Your task to perform on an android device: stop showing notifications on the lock screen Image 0: 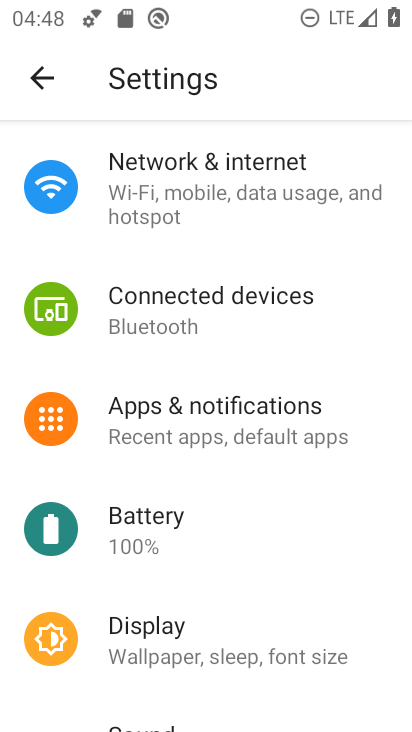
Step 0: press home button
Your task to perform on an android device: stop showing notifications on the lock screen Image 1: 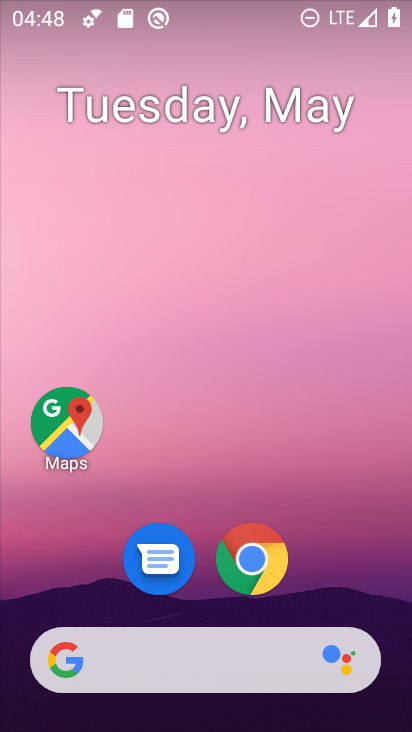
Step 1: drag from (230, 722) to (215, 197)
Your task to perform on an android device: stop showing notifications on the lock screen Image 2: 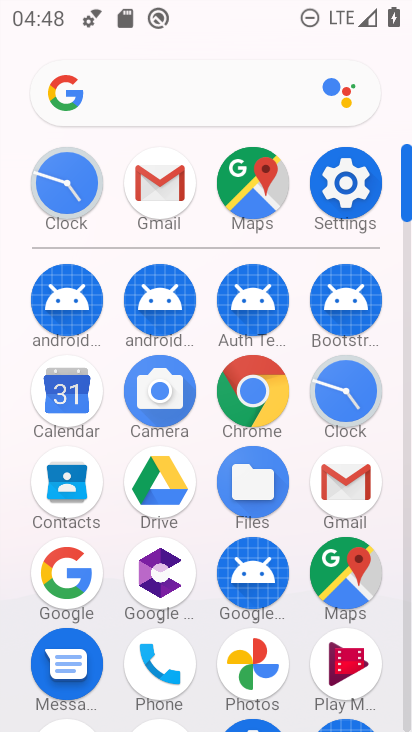
Step 2: click (348, 188)
Your task to perform on an android device: stop showing notifications on the lock screen Image 3: 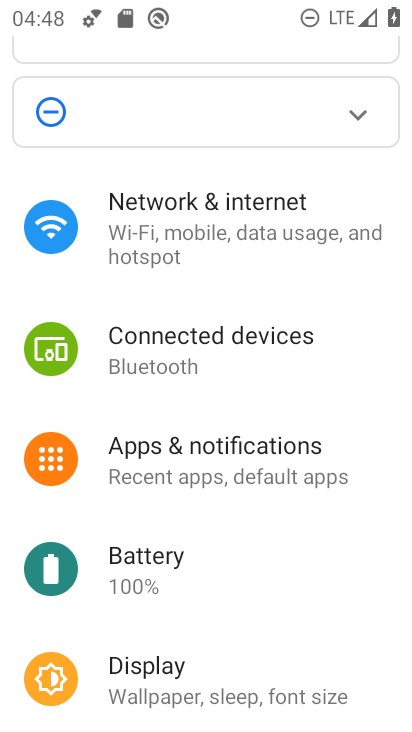
Step 3: click (213, 442)
Your task to perform on an android device: stop showing notifications on the lock screen Image 4: 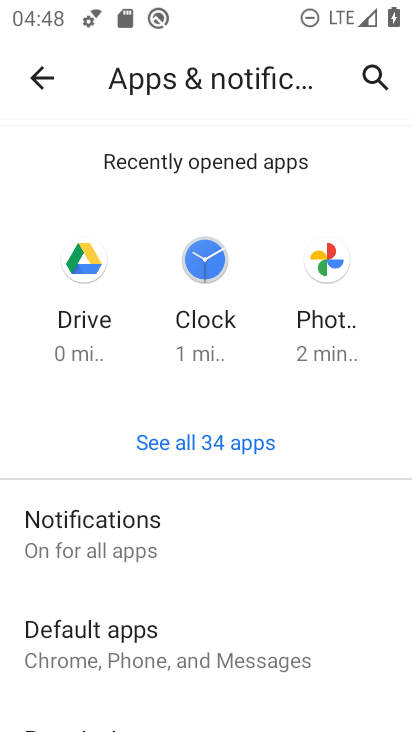
Step 4: click (83, 534)
Your task to perform on an android device: stop showing notifications on the lock screen Image 5: 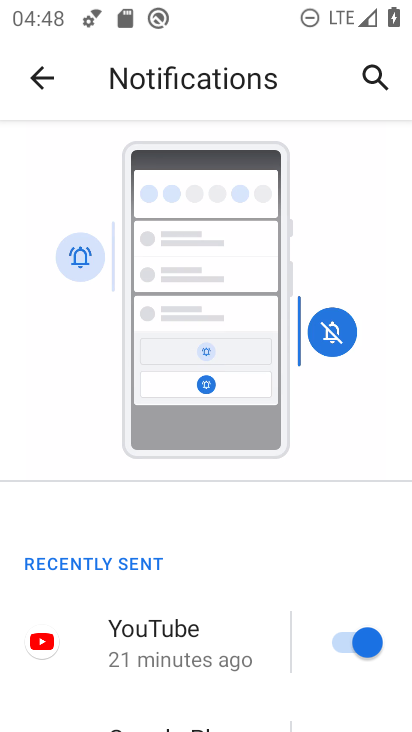
Step 5: drag from (211, 690) to (213, 256)
Your task to perform on an android device: stop showing notifications on the lock screen Image 6: 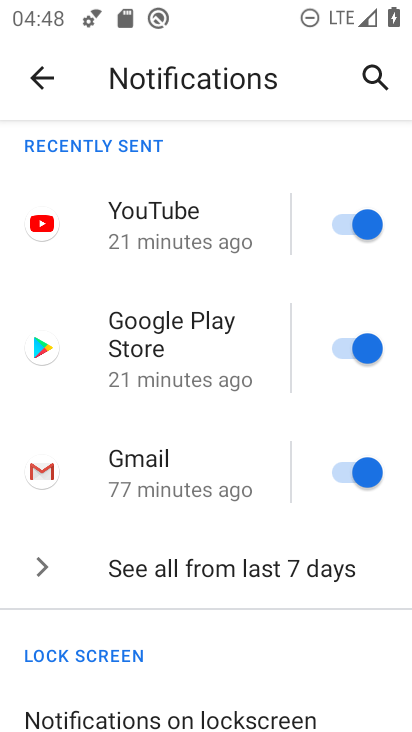
Step 6: drag from (171, 685) to (177, 433)
Your task to perform on an android device: stop showing notifications on the lock screen Image 7: 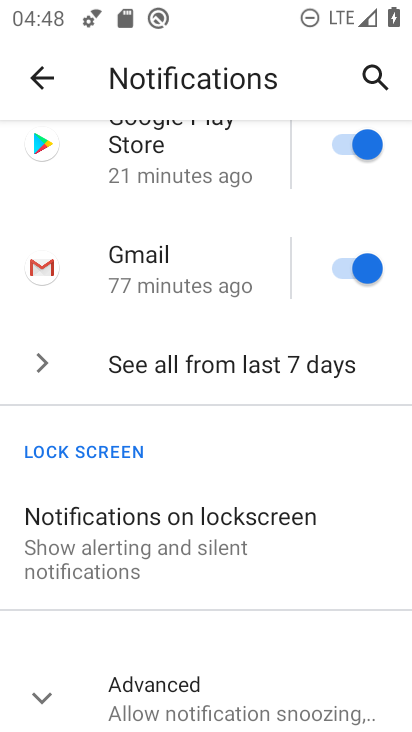
Step 7: click (112, 521)
Your task to perform on an android device: stop showing notifications on the lock screen Image 8: 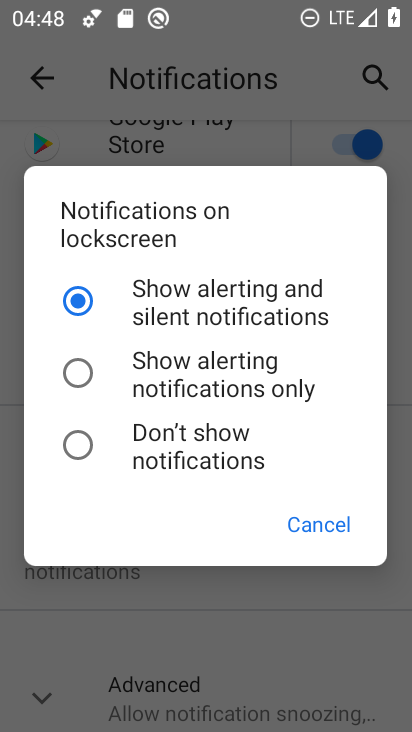
Step 8: click (77, 445)
Your task to perform on an android device: stop showing notifications on the lock screen Image 9: 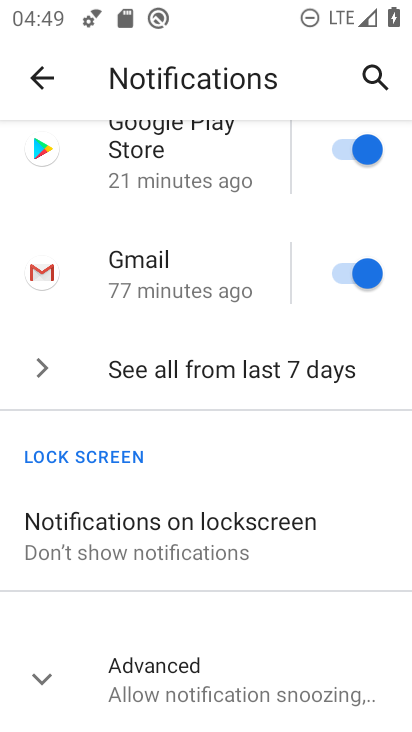
Step 9: task complete